Your task to perform on an android device: create a new album in the google photos Image 0: 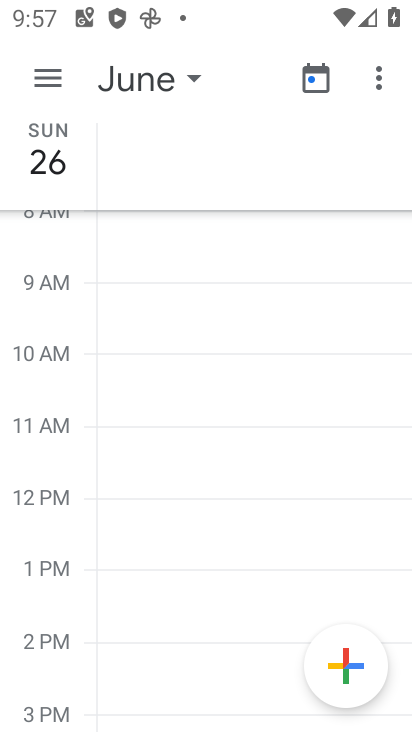
Step 0: press home button
Your task to perform on an android device: create a new album in the google photos Image 1: 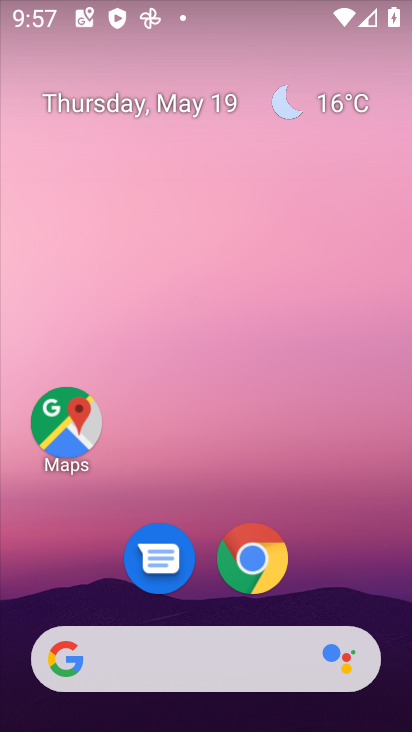
Step 1: drag from (204, 711) to (206, 121)
Your task to perform on an android device: create a new album in the google photos Image 2: 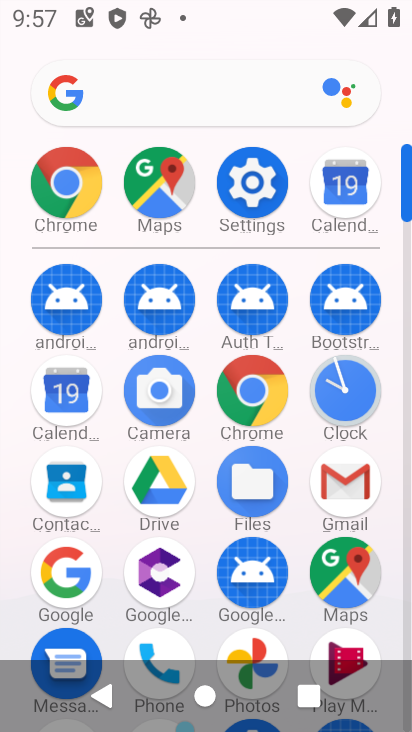
Step 2: click (259, 646)
Your task to perform on an android device: create a new album in the google photos Image 3: 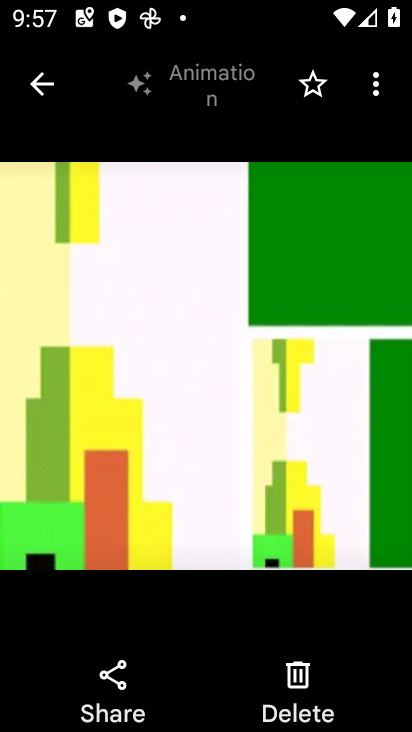
Step 3: click (51, 82)
Your task to perform on an android device: create a new album in the google photos Image 4: 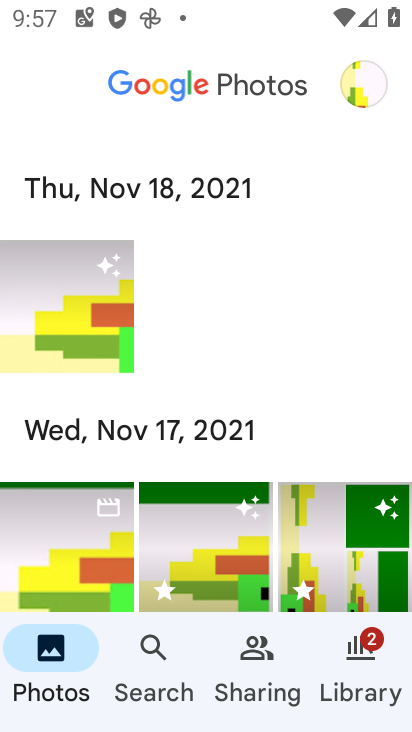
Step 4: click (367, 663)
Your task to perform on an android device: create a new album in the google photos Image 5: 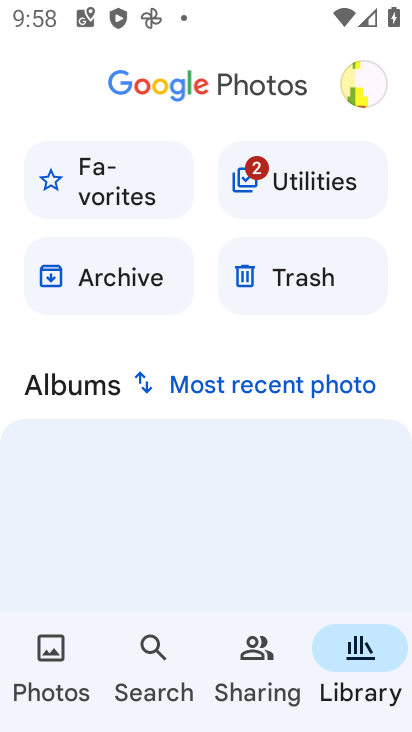
Step 5: drag from (201, 563) to (211, 132)
Your task to perform on an android device: create a new album in the google photos Image 6: 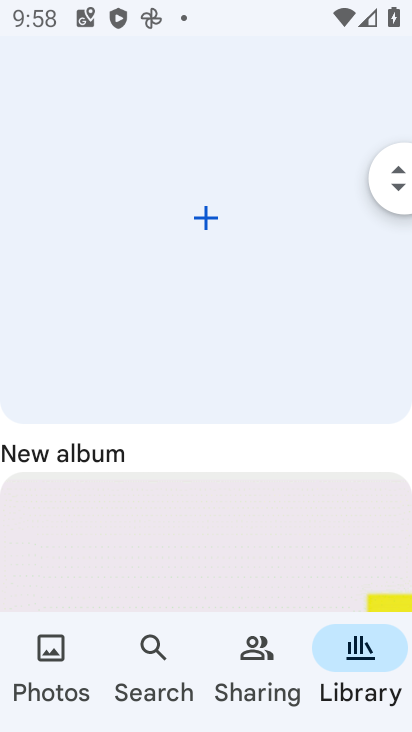
Step 6: click (202, 213)
Your task to perform on an android device: create a new album in the google photos Image 7: 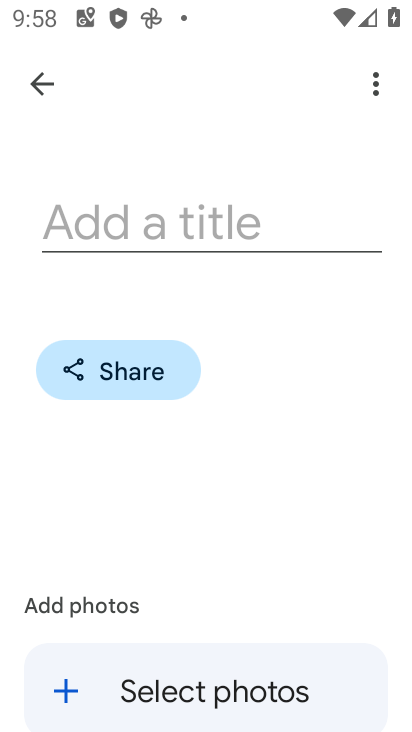
Step 7: click (196, 220)
Your task to perform on an android device: create a new album in the google photos Image 8: 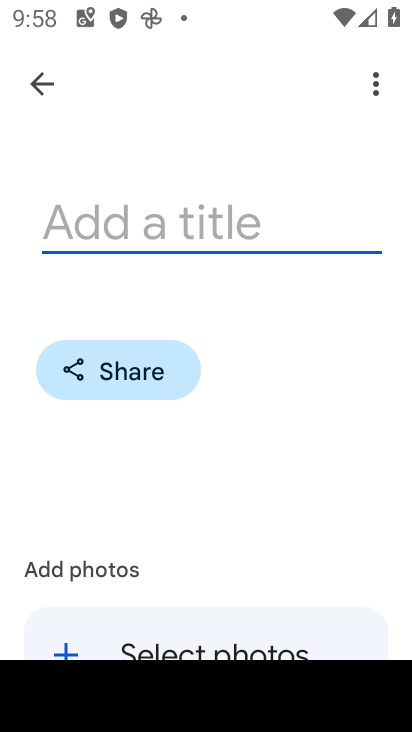
Step 8: type "12th man"
Your task to perform on an android device: create a new album in the google photos Image 9: 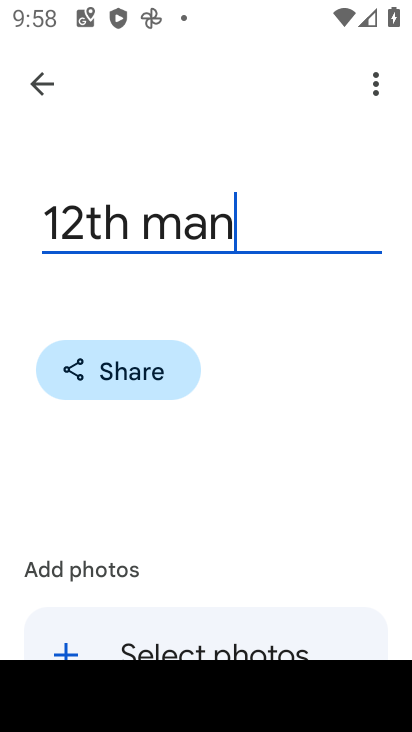
Step 9: type ""
Your task to perform on an android device: create a new album in the google photos Image 10: 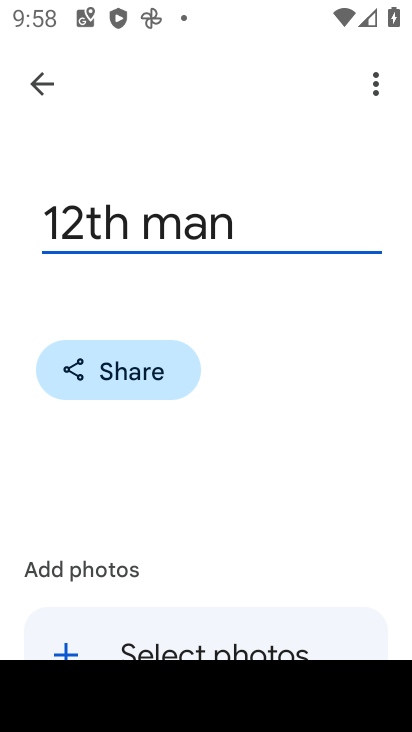
Step 10: drag from (203, 512) to (211, 264)
Your task to perform on an android device: create a new album in the google photos Image 11: 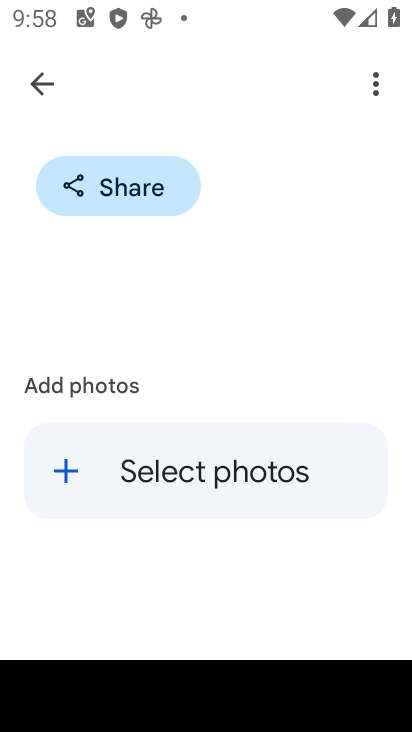
Step 11: click (71, 465)
Your task to perform on an android device: create a new album in the google photos Image 12: 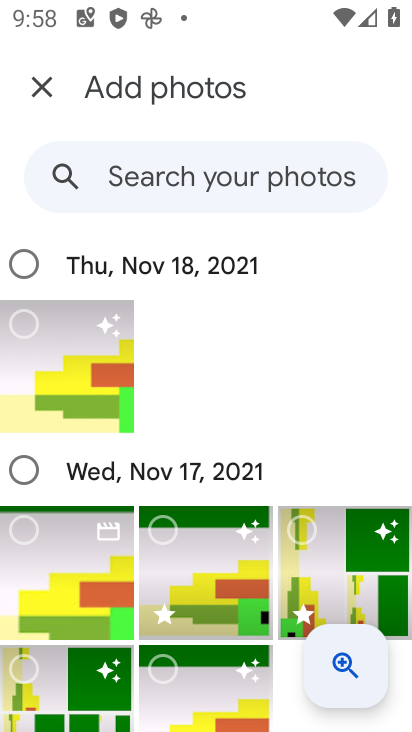
Step 12: click (36, 325)
Your task to perform on an android device: create a new album in the google photos Image 13: 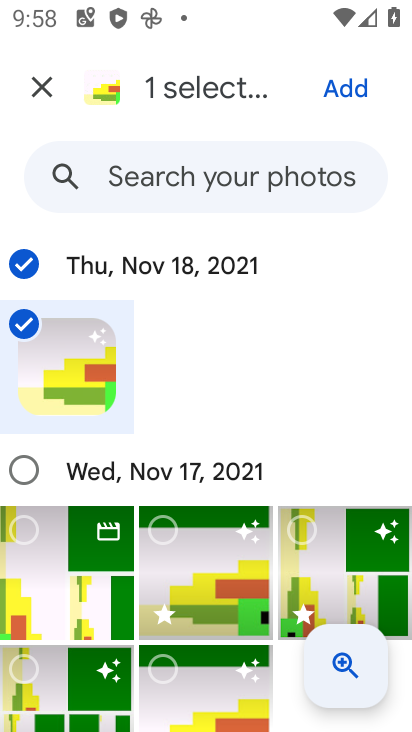
Step 13: click (343, 90)
Your task to perform on an android device: create a new album in the google photos Image 14: 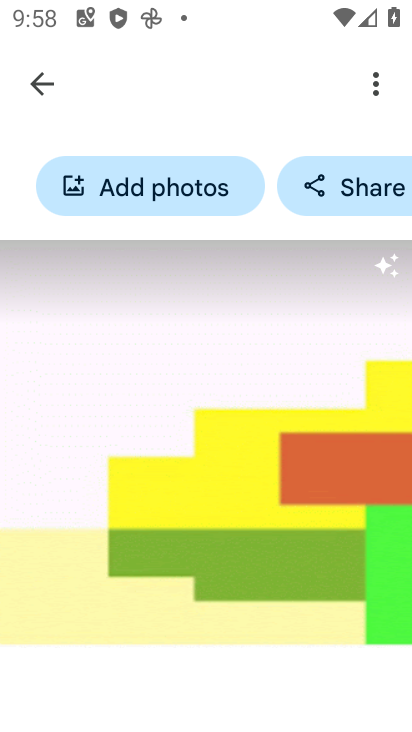
Step 14: task complete